Your task to perform on an android device: Search for pizza restaurants on Maps Image 0: 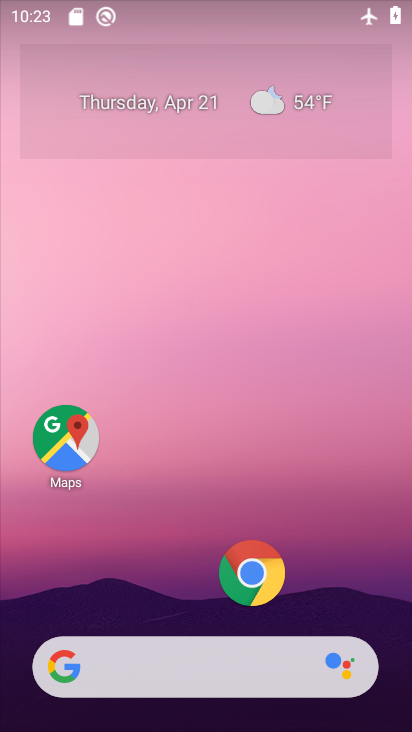
Step 0: click (76, 451)
Your task to perform on an android device: Search for pizza restaurants on Maps Image 1: 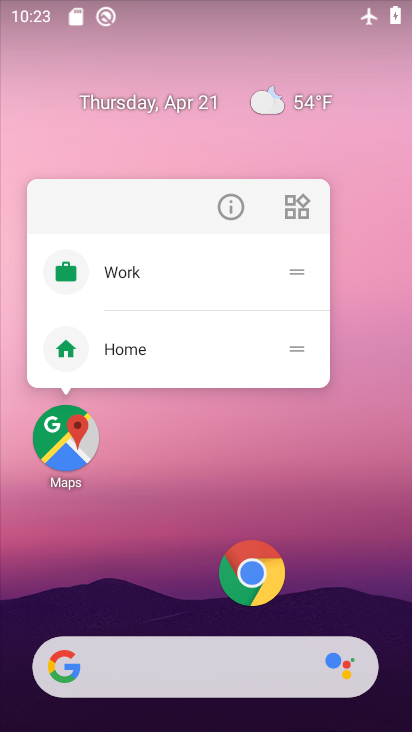
Step 1: click (61, 432)
Your task to perform on an android device: Search for pizza restaurants on Maps Image 2: 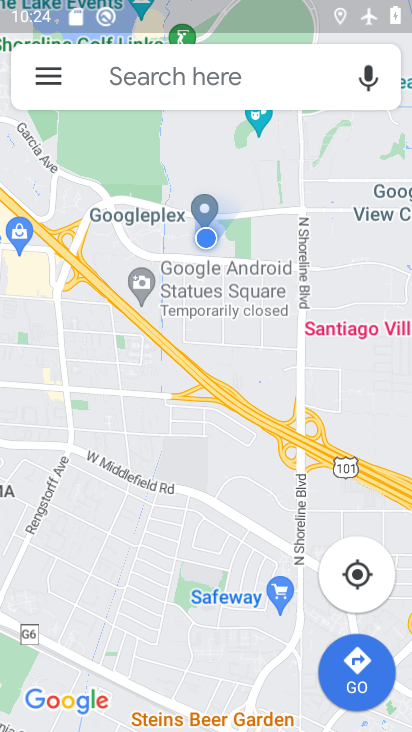
Step 2: click (209, 90)
Your task to perform on an android device: Search for pizza restaurants on Maps Image 3: 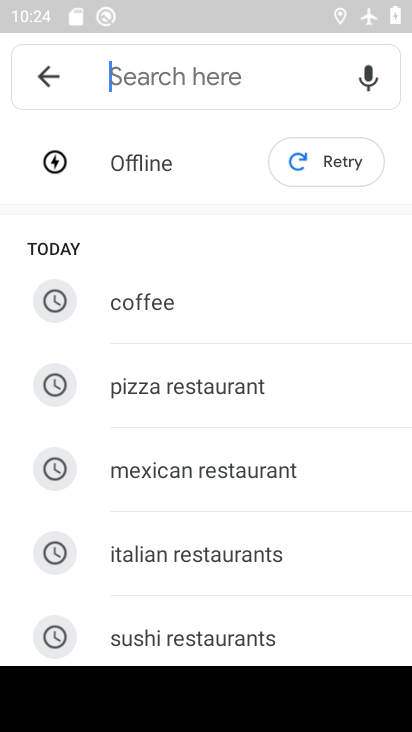
Step 3: type "pizza restaurants"
Your task to perform on an android device: Search for pizza restaurants on Maps Image 4: 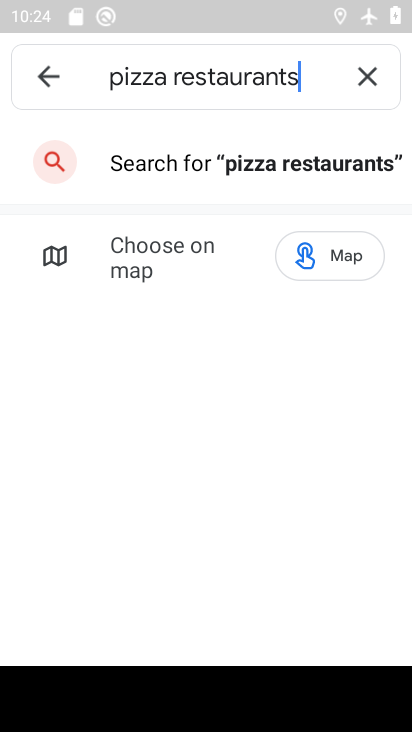
Step 4: task complete